Your task to perform on an android device: remove spam from my inbox in the gmail app Image 0: 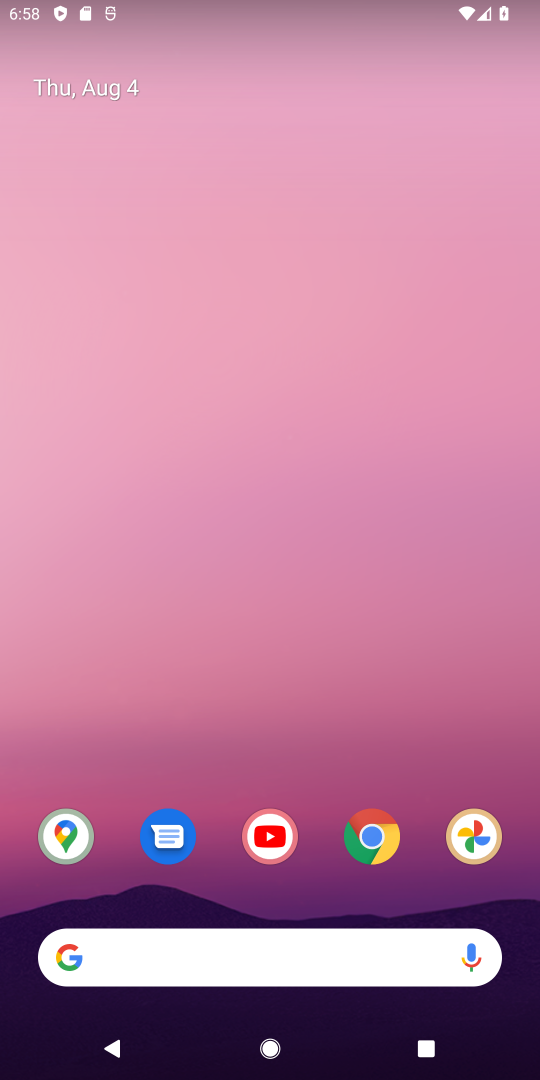
Step 0: drag from (222, 903) to (383, 15)
Your task to perform on an android device: remove spam from my inbox in the gmail app Image 1: 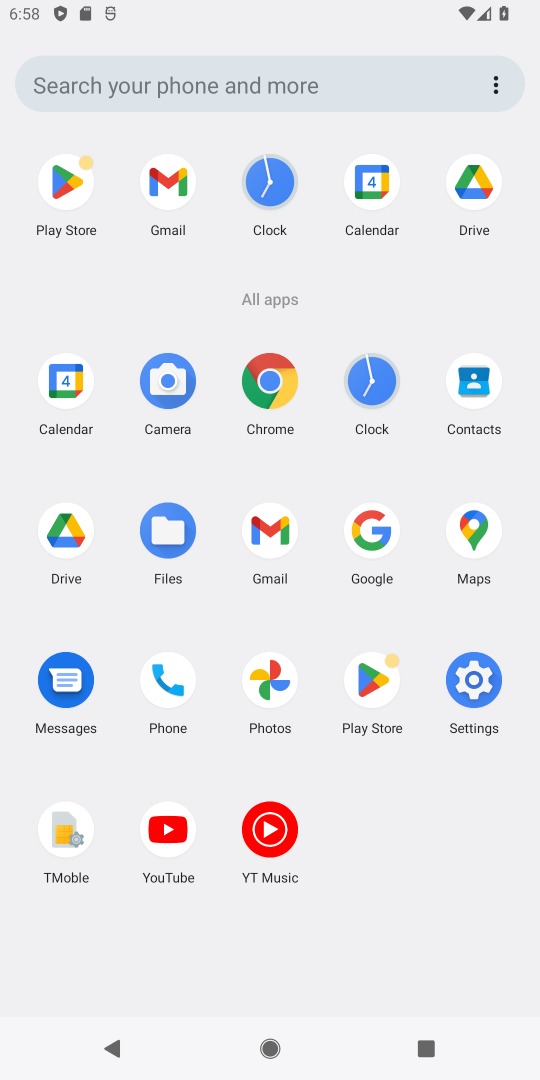
Step 1: click (158, 179)
Your task to perform on an android device: remove spam from my inbox in the gmail app Image 2: 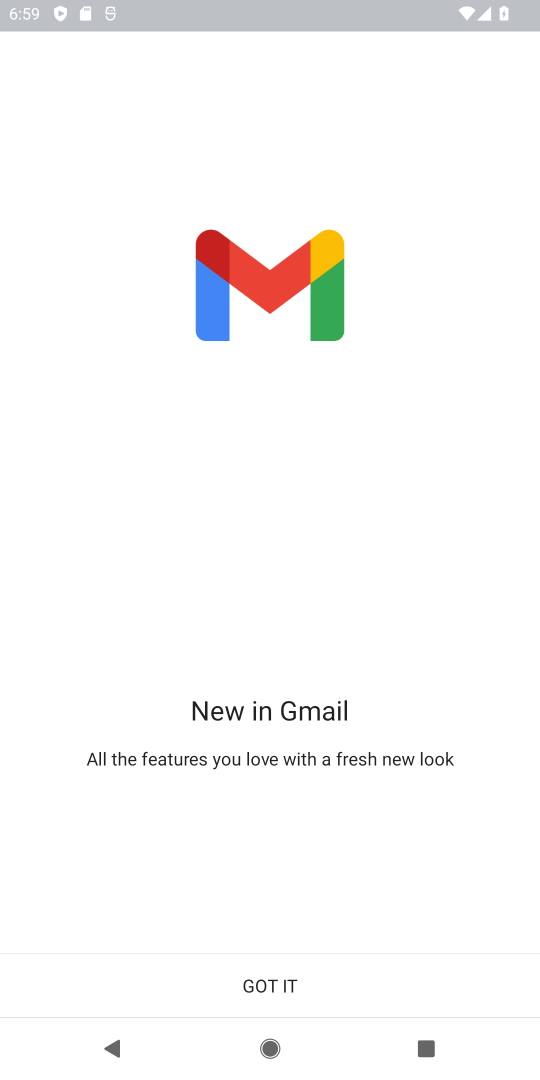
Step 2: click (268, 972)
Your task to perform on an android device: remove spam from my inbox in the gmail app Image 3: 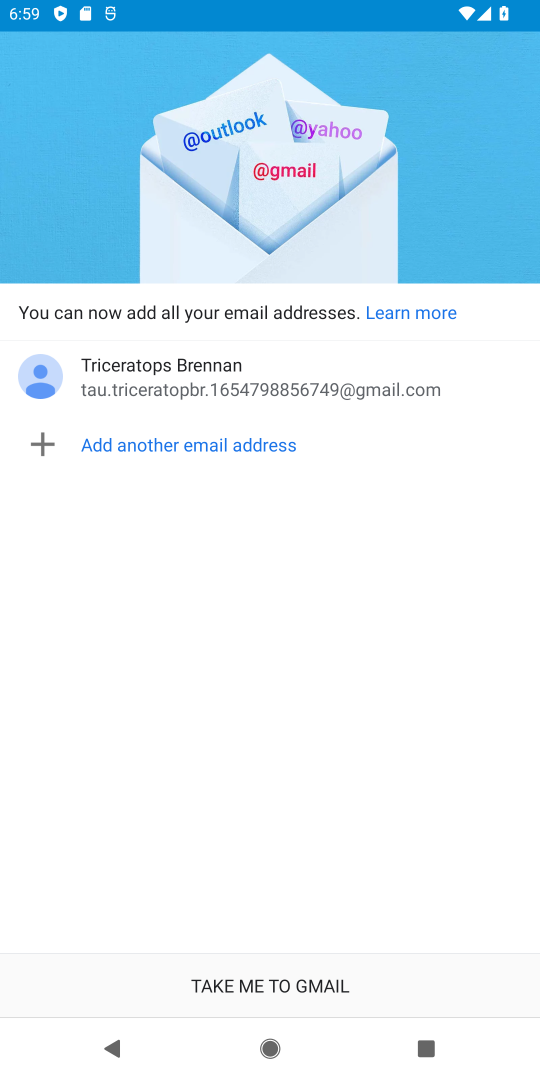
Step 3: click (246, 971)
Your task to perform on an android device: remove spam from my inbox in the gmail app Image 4: 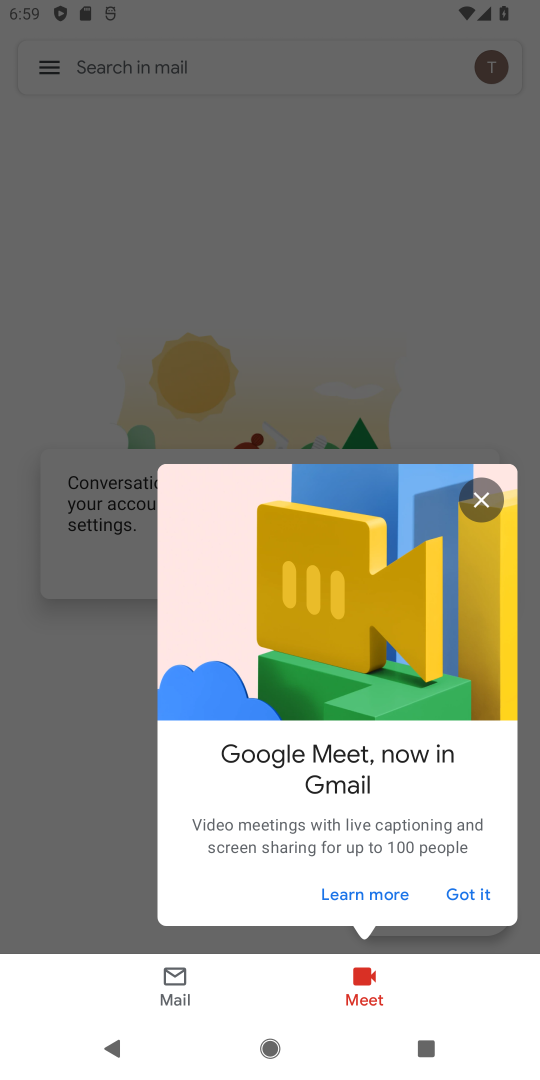
Step 4: click (478, 905)
Your task to perform on an android device: remove spam from my inbox in the gmail app Image 5: 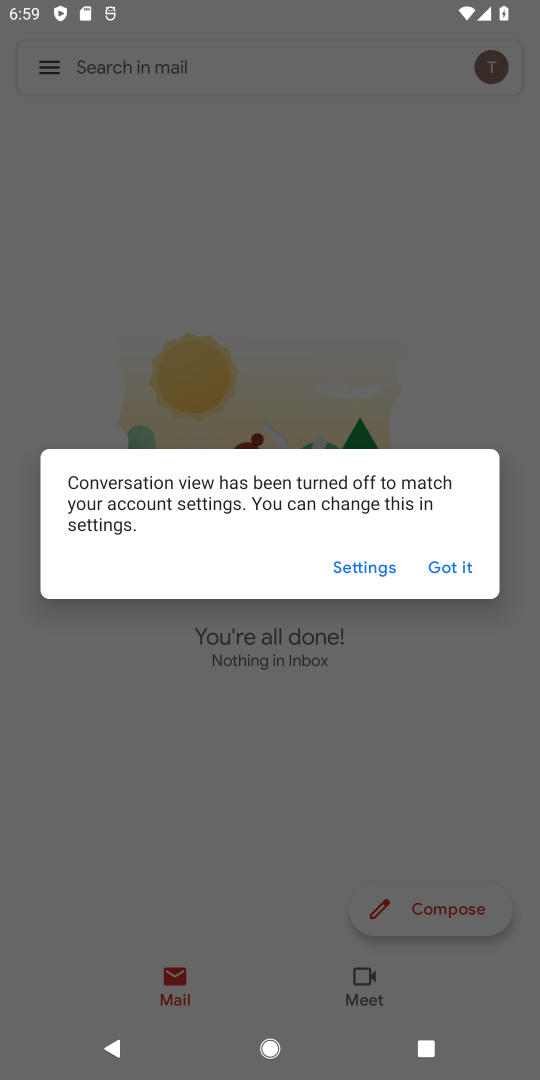
Step 5: click (443, 543)
Your task to perform on an android device: remove spam from my inbox in the gmail app Image 6: 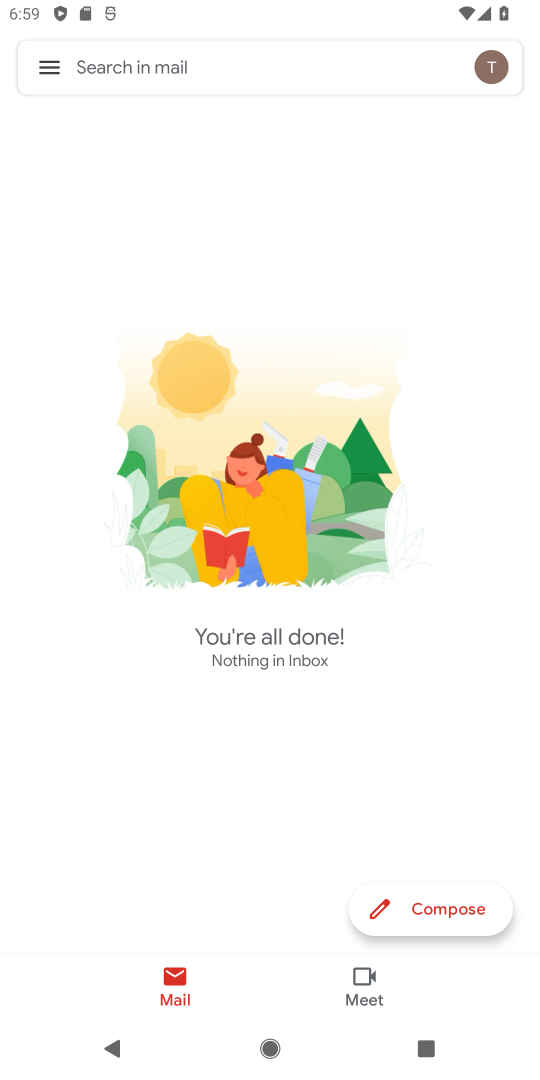
Step 6: click (45, 73)
Your task to perform on an android device: remove spam from my inbox in the gmail app Image 7: 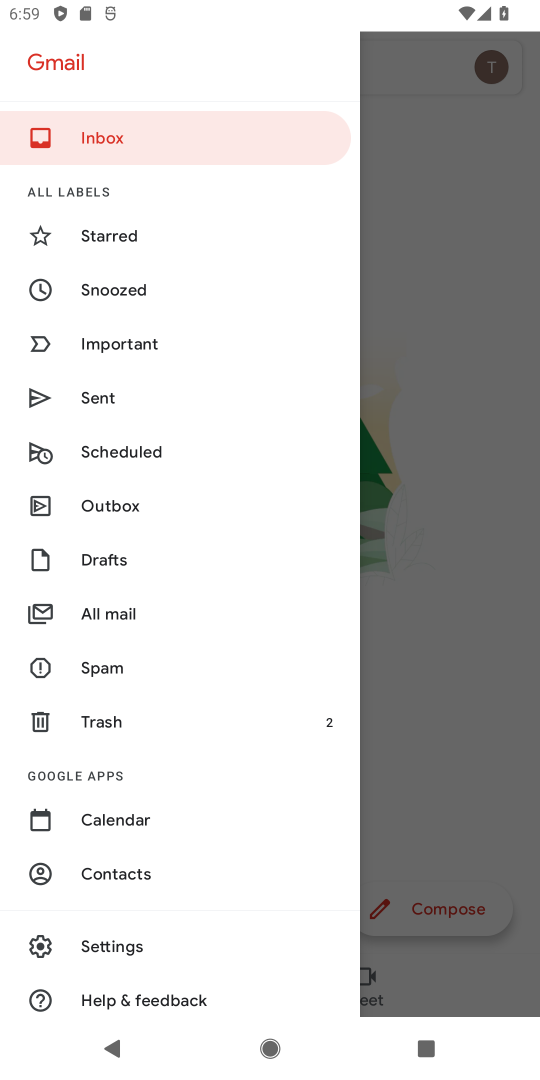
Step 7: click (106, 668)
Your task to perform on an android device: remove spam from my inbox in the gmail app Image 8: 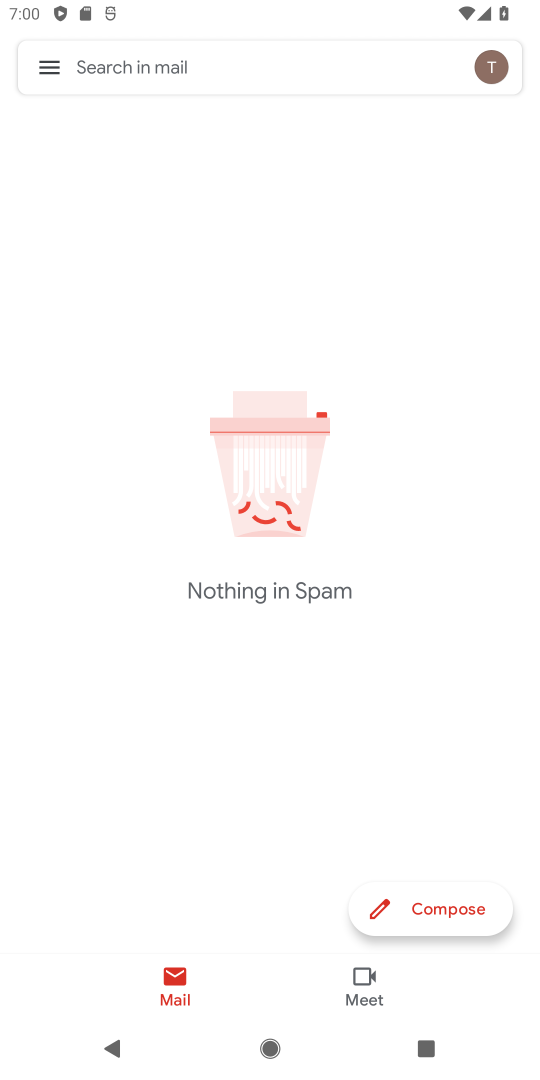
Step 8: task complete